Your task to perform on an android device: Open the phone app and click the voicemail tab. Image 0: 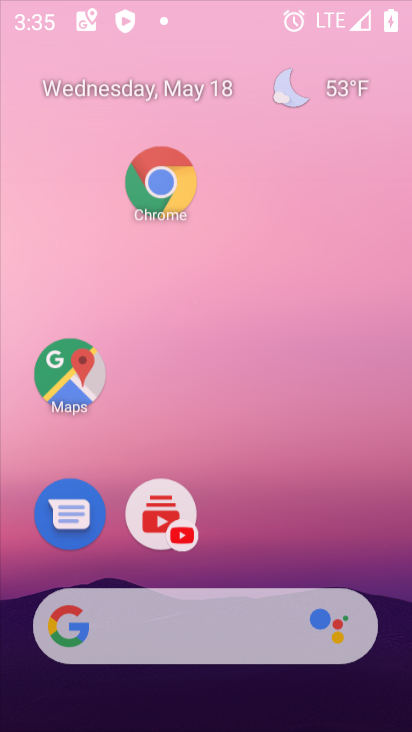
Step 0: click (113, 57)
Your task to perform on an android device: Open the phone app and click the voicemail tab. Image 1: 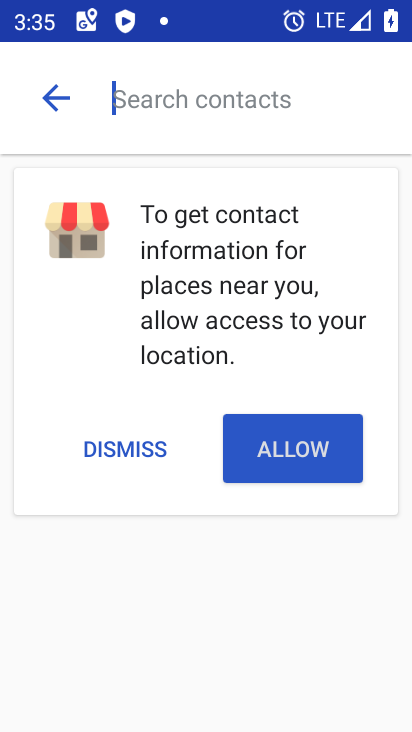
Step 1: click (54, 94)
Your task to perform on an android device: Open the phone app and click the voicemail tab. Image 2: 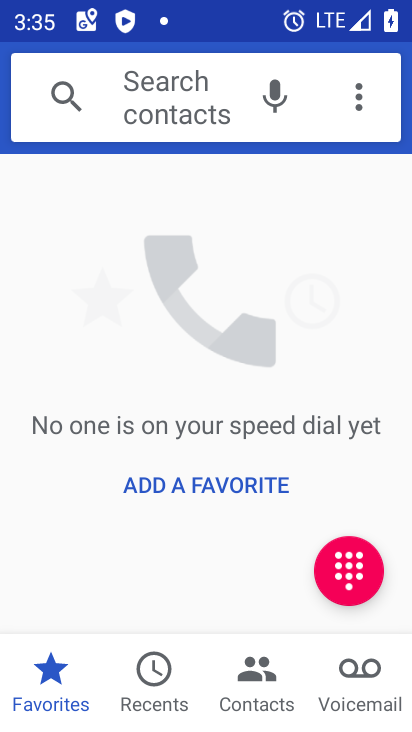
Step 2: click (366, 692)
Your task to perform on an android device: Open the phone app and click the voicemail tab. Image 3: 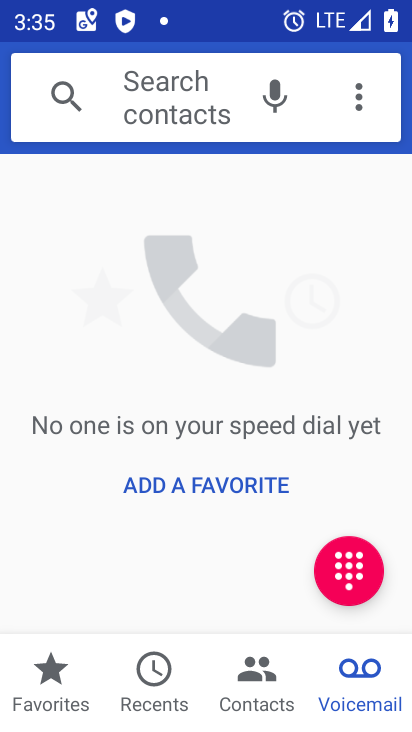
Step 3: click (359, 692)
Your task to perform on an android device: Open the phone app and click the voicemail tab. Image 4: 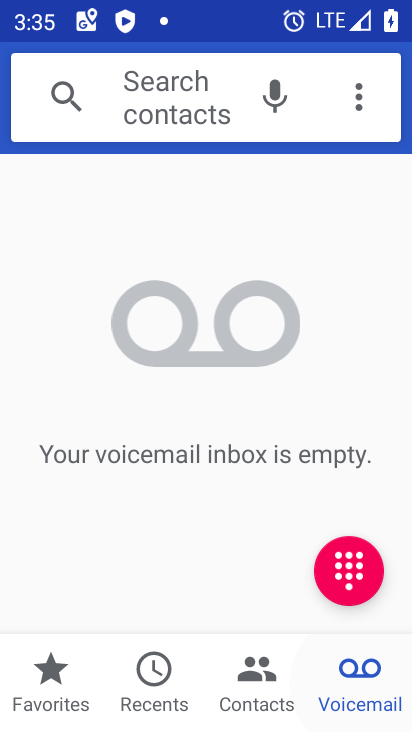
Step 4: click (359, 692)
Your task to perform on an android device: Open the phone app and click the voicemail tab. Image 5: 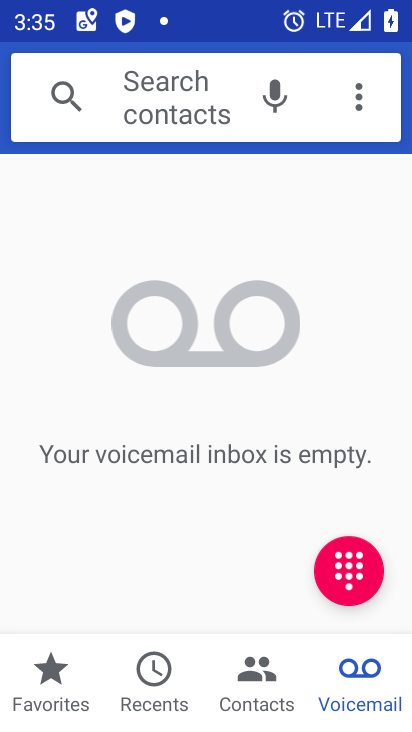
Step 5: task complete